Your task to perform on an android device: change the clock display to digital Image 0: 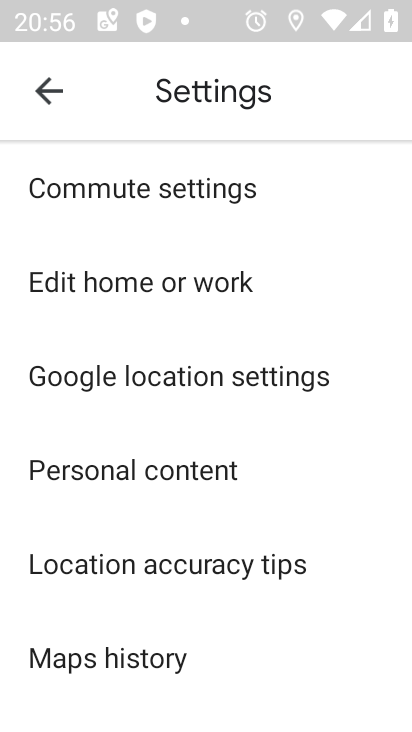
Step 0: press home button
Your task to perform on an android device: change the clock display to digital Image 1: 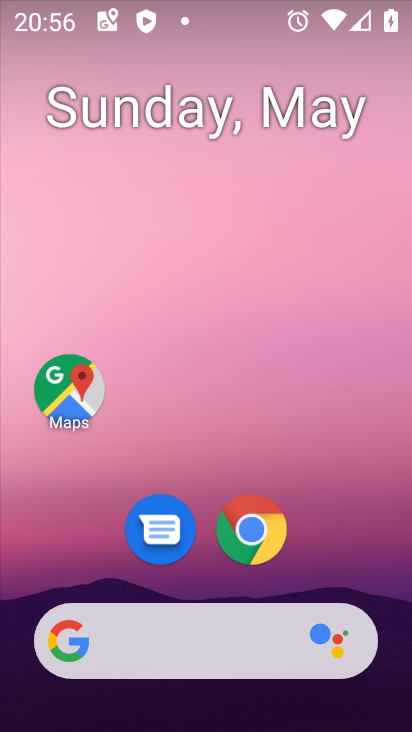
Step 1: drag from (320, 573) to (300, 0)
Your task to perform on an android device: change the clock display to digital Image 2: 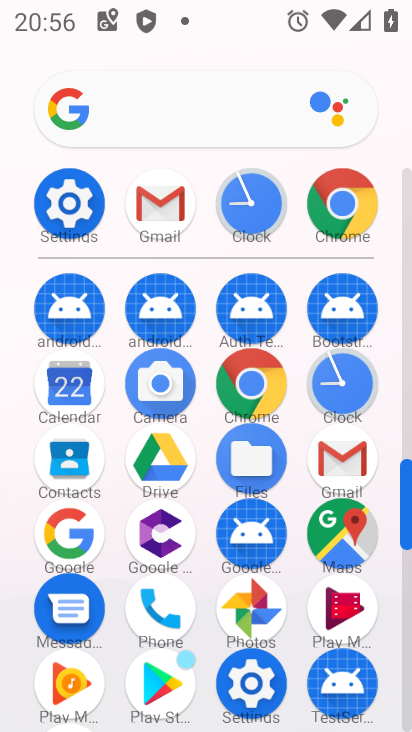
Step 2: click (252, 215)
Your task to perform on an android device: change the clock display to digital Image 3: 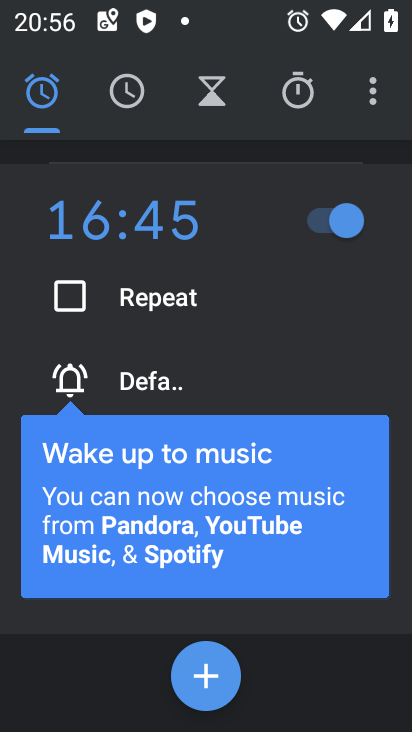
Step 3: click (372, 88)
Your task to perform on an android device: change the clock display to digital Image 4: 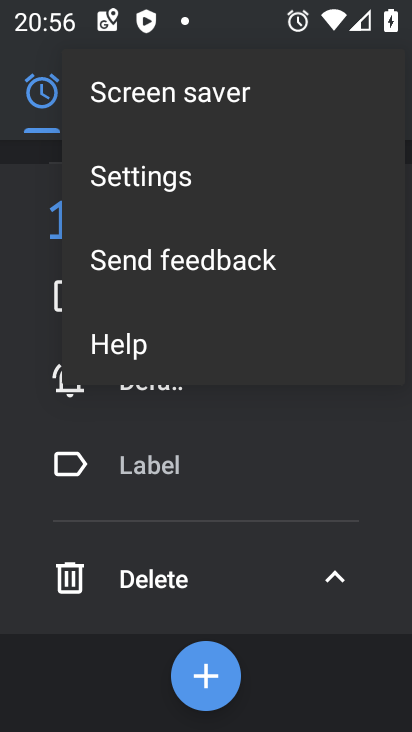
Step 4: click (149, 174)
Your task to perform on an android device: change the clock display to digital Image 5: 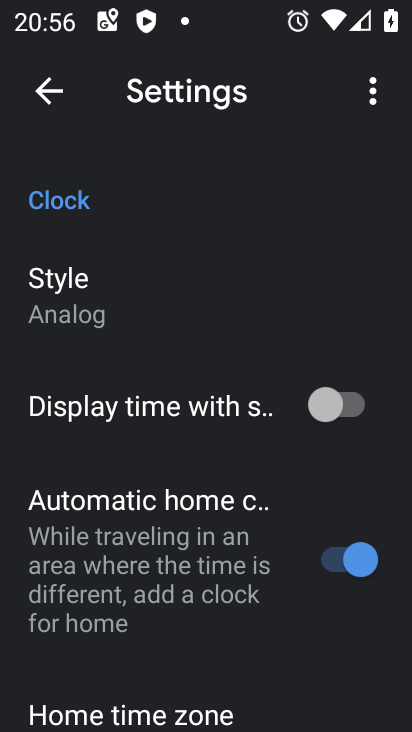
Step 5: click (65, 315)
Your task to perform on an android device: change the clock display to digital Image 6: 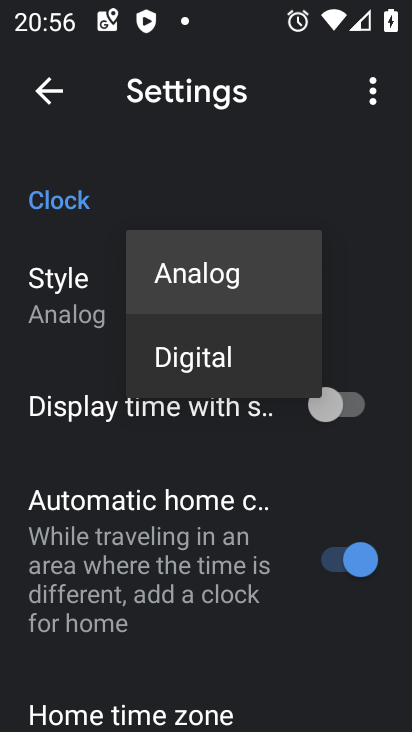
Step 6: click (162, 359)
Your task to perform on an android device: change the clock display to digital Image 7: 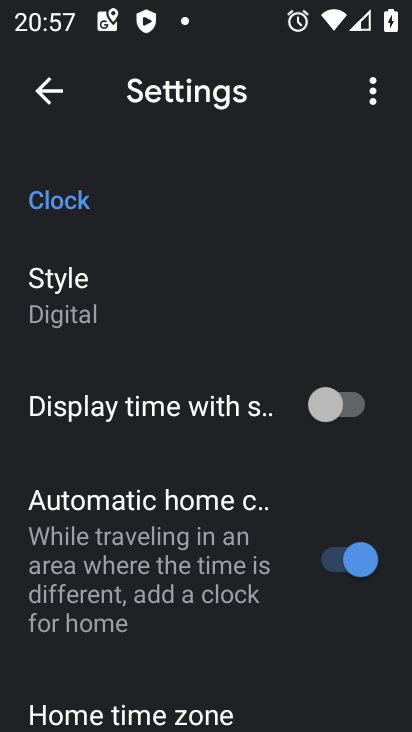
Step 7: task complete